Your task to perform on an android device: What is the news today? Image 0: 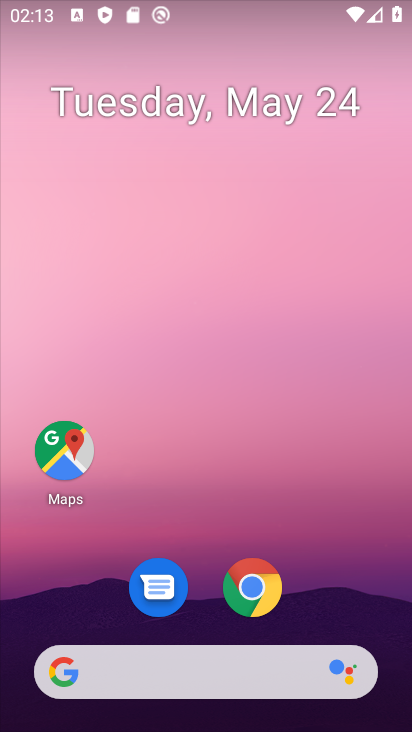
Step 0: click (133, 692)
Your task to perform on an android device: What is the news today? Image 1: 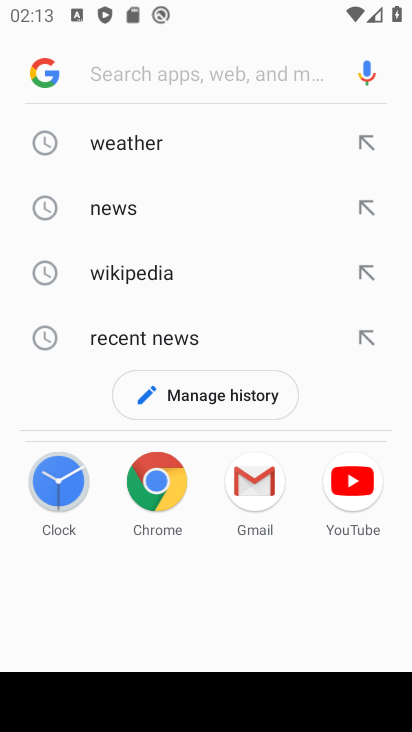
Step 1: type "What is the news today?"
Your task to perform on an android device: What is the news today? Image 2: 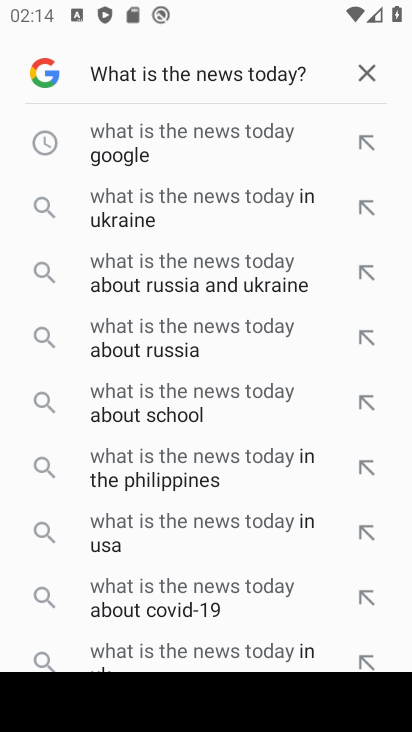
Step 2: click (123, 135)
Your task to perform on an android device: What is the news today? Image 3: 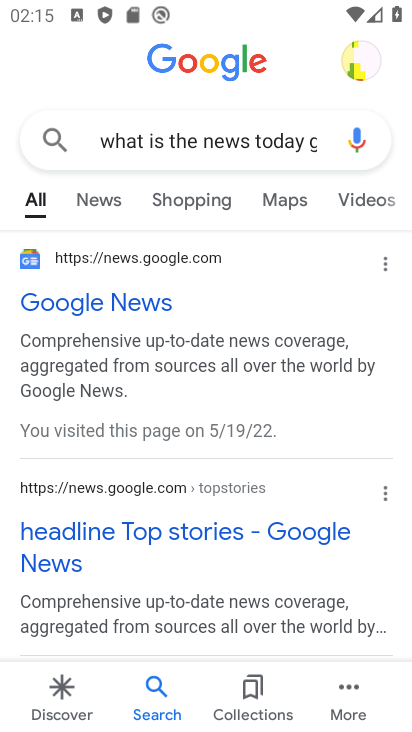
Step 3: task complete